Your task to perform on an android device: What is the news today? Image 0: 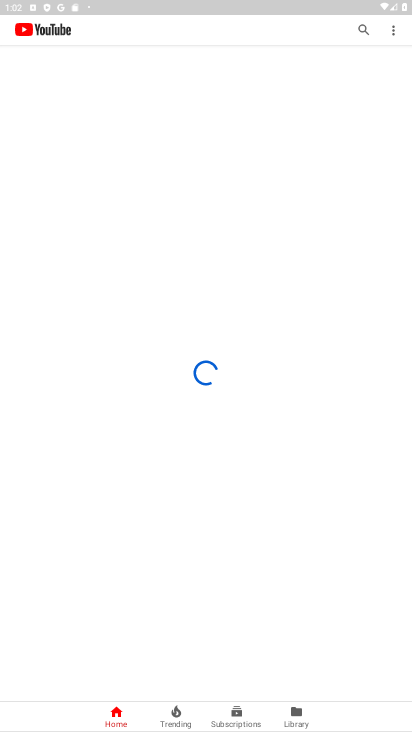
Step 0: press home button
Your task to perform on an android device: What is the news today? Image 1: 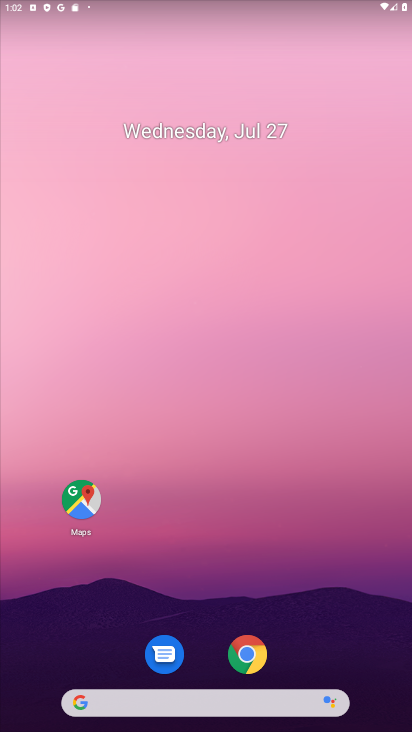
Step 1: drag from (305, 694) to (386, 51)
Your task to perform on an android device: What is the news today? Image 2: 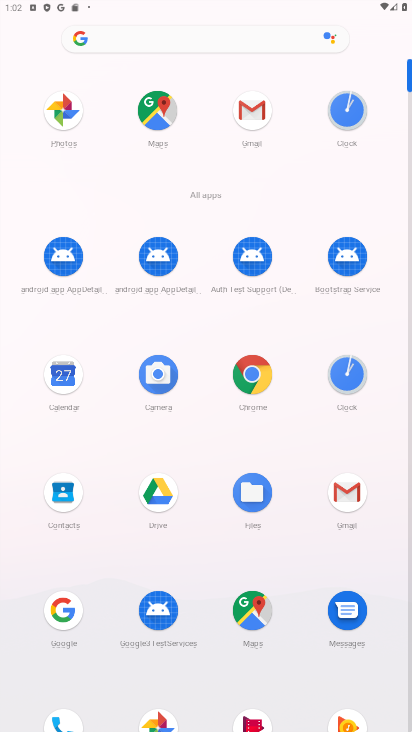
Step 2: click (244, 388)
Your task to perform on an android device: What is the news today? Image 3: 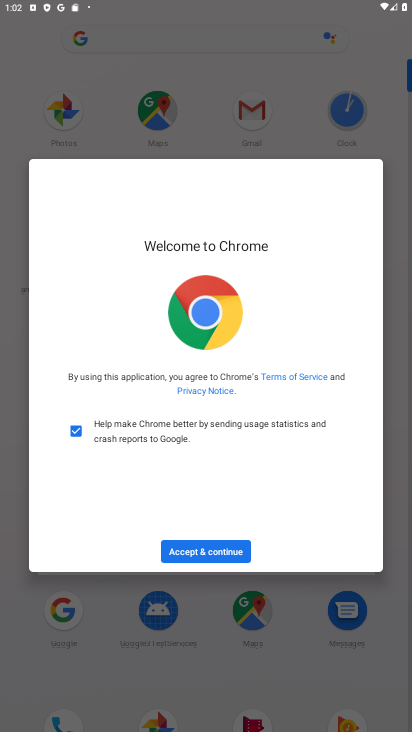
Step 3: click (211, 554)
Your task to perform on an android device: What is the news today? Image 4: 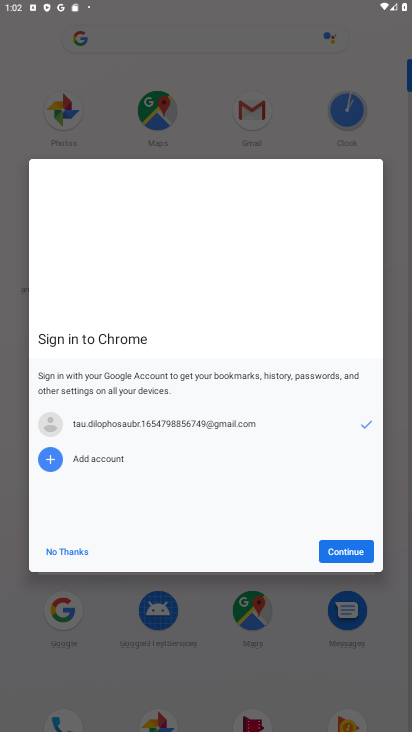
Step 4: click (59, 550)
Your task to perform on an android device: What is the news today? Image 5: 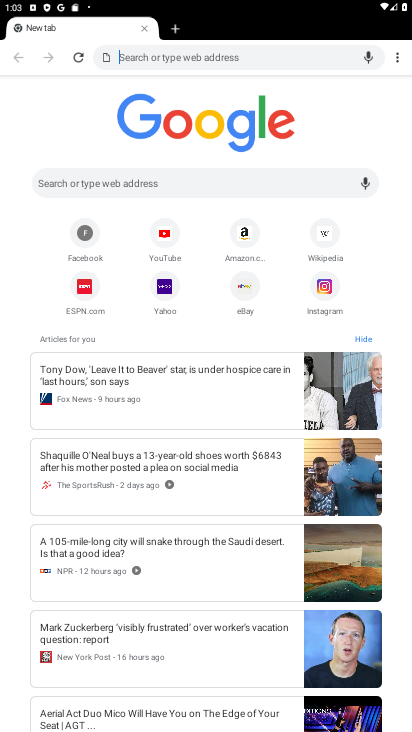
Step 5: type "news today"
Your task to perform on an android device: What is the news today? Image 6: 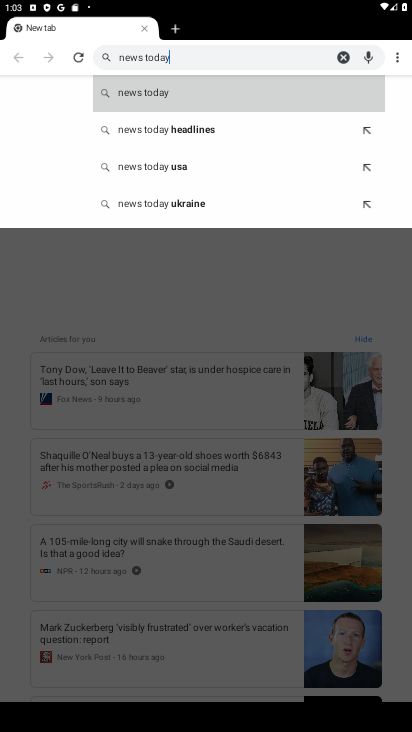
Step 6: click (162, 98)
Your task to perform on an android device: What is the news today? Image 7: 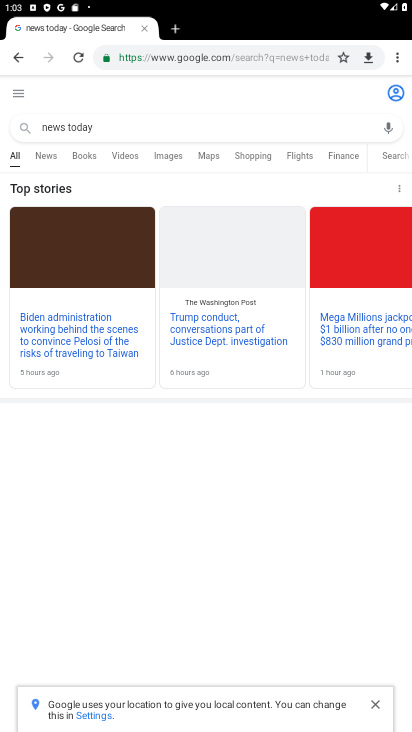
Step 7: task complete